Your task to perform on an android device: turn off javascript in the chrome app Image 0: 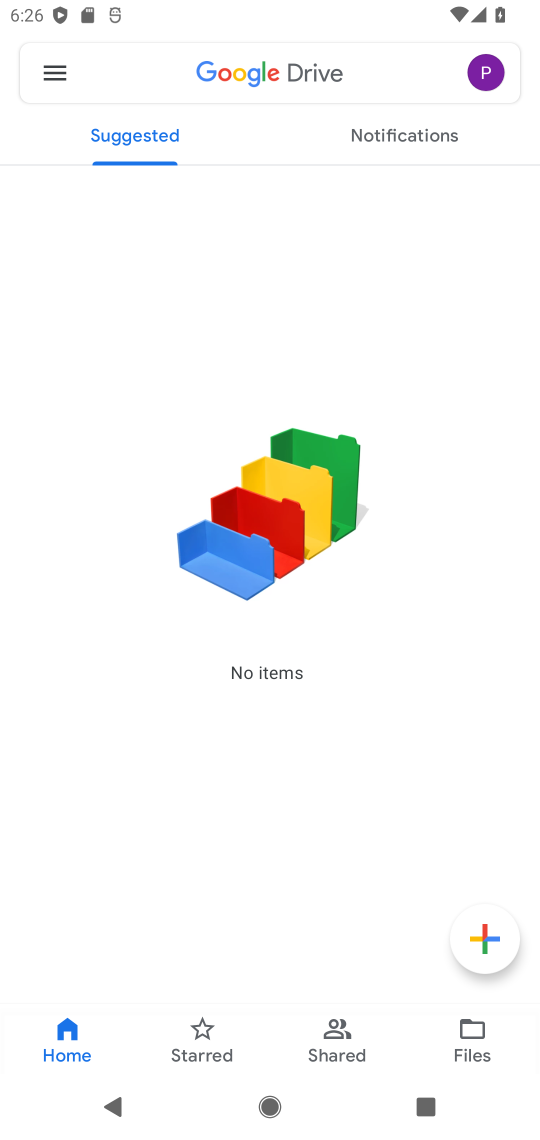
Step 0: press home button
Your task to perform on an android device: turn off javascript in the chrome app Image 1: 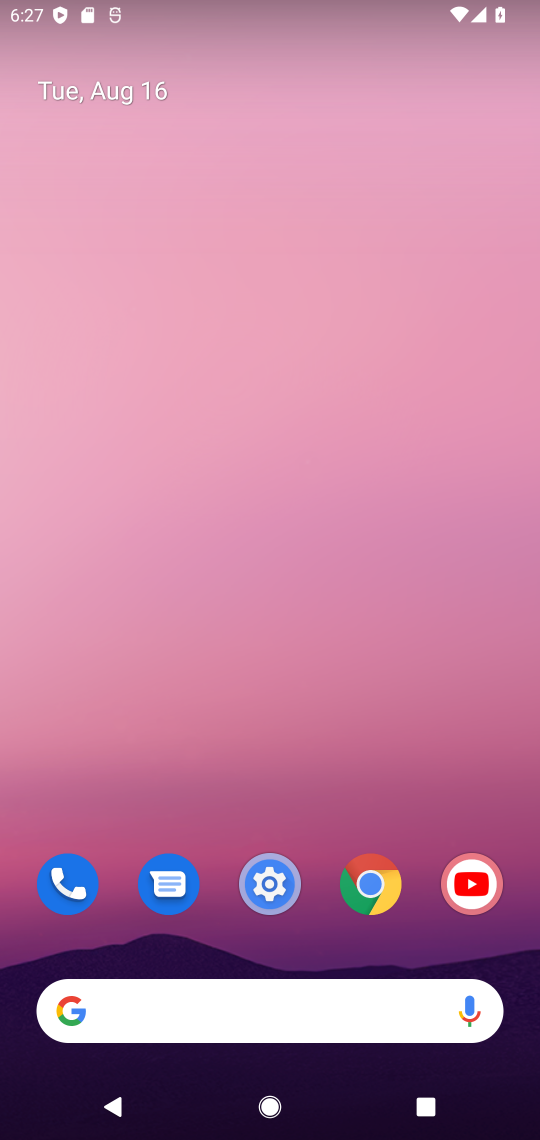
Step 1: click (368, 881)
Your task to perform on an android device: turn off javascript in the chrome app Image 2: 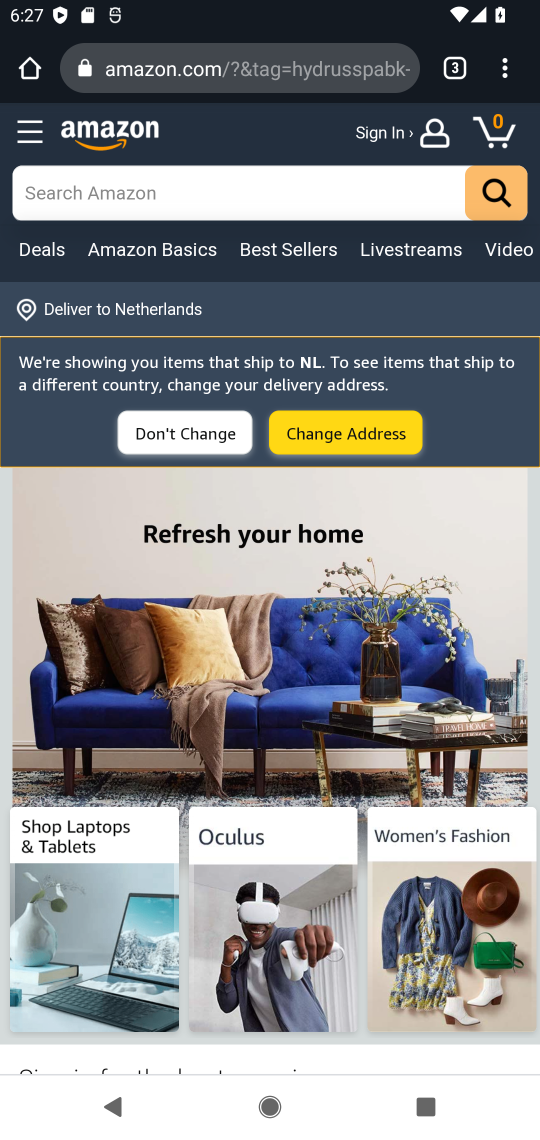
Step 2: drag from (499, 81) to (306, 841)
Your task to perform on an android device: turn off javascript in the chrome app Image 3: 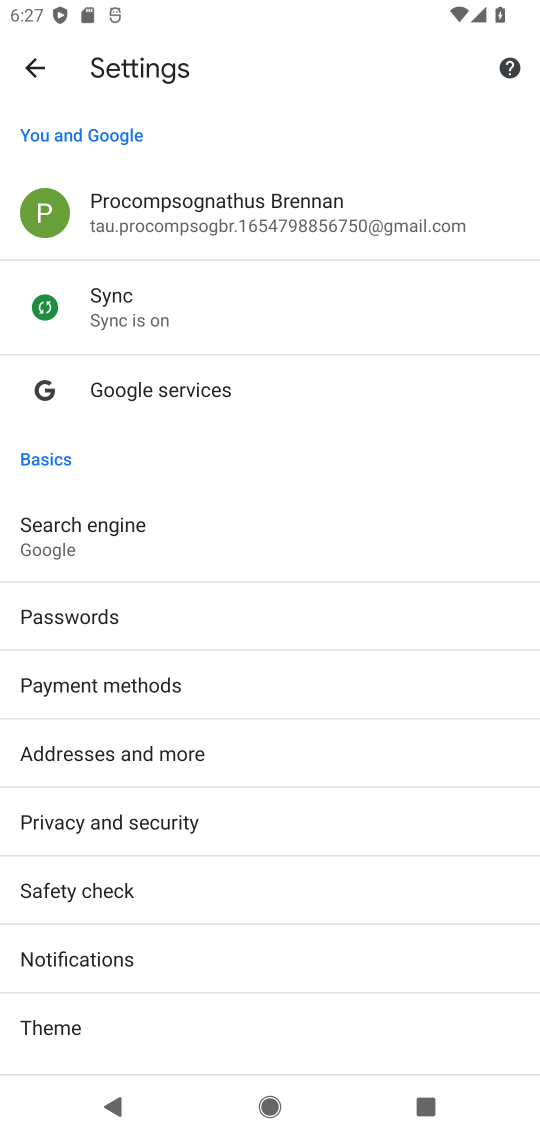
Step 3: drag from (277, 1016) to (112, 450)
Your task to perform on an android device: turn off javascript in the chrome app Image 4: 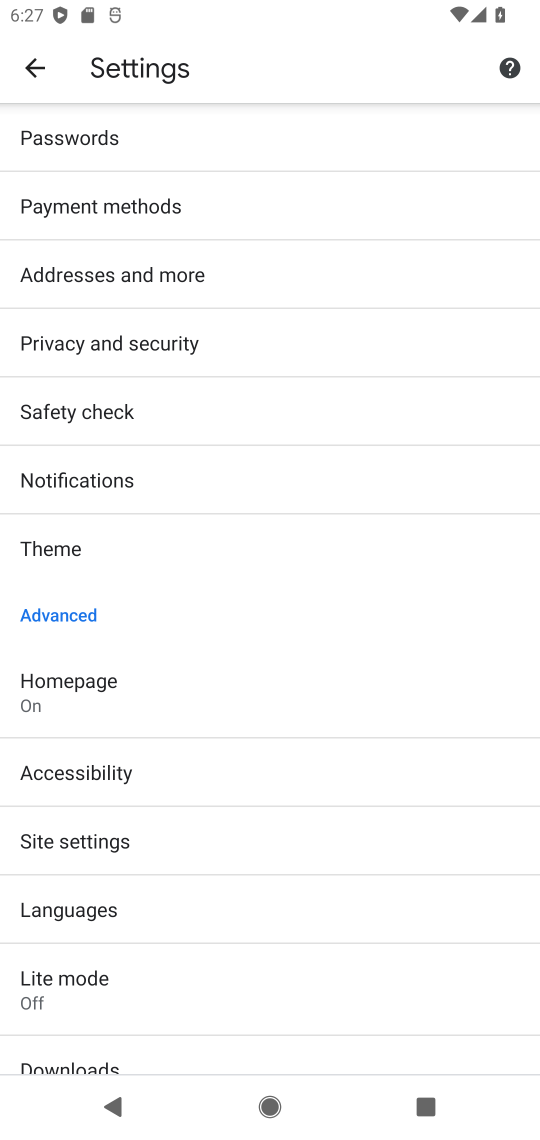
Step 4: click (33, 841)
Your task to perform on an android device: turn off javascript in the chrome app Image 5: 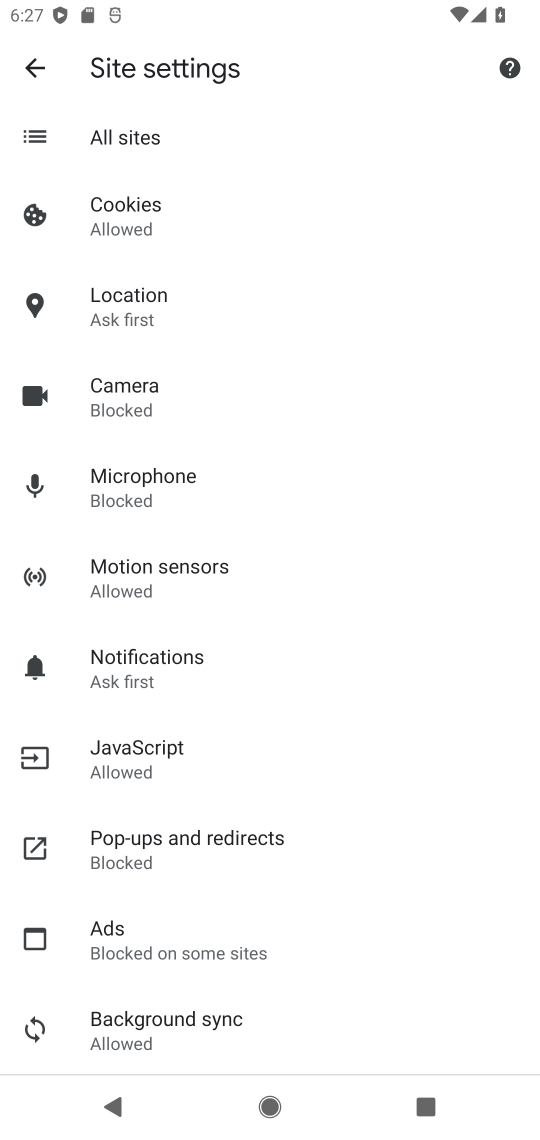
Step 5: click (128, 721)
Your task to perform on an android device: turn off javascript in the chrome app Image 6: 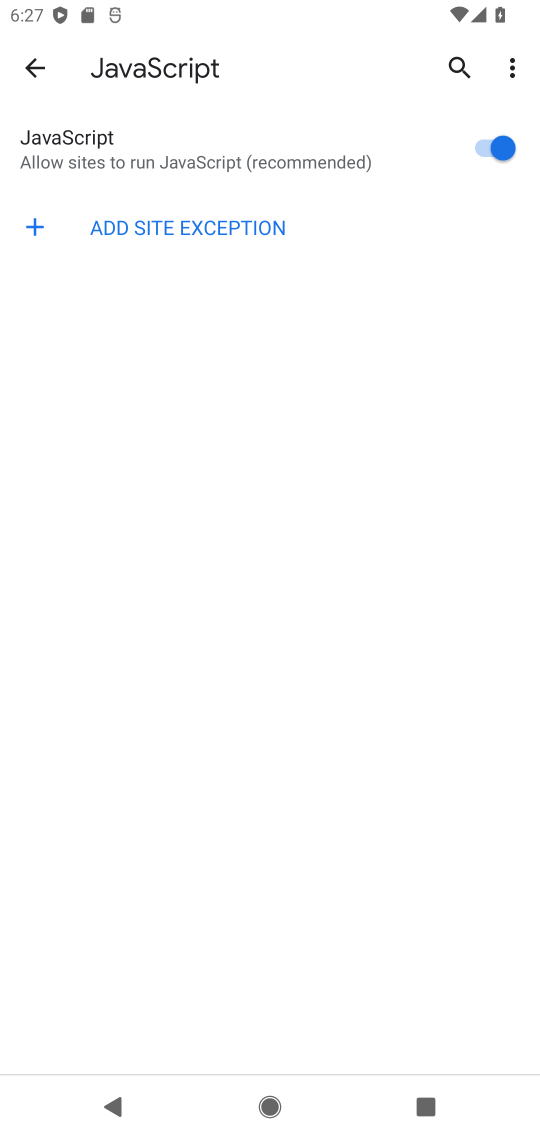
Step 6: click (489, 151)
Your task to perform on an android device: turn off javascript in the chrome app Image 7: 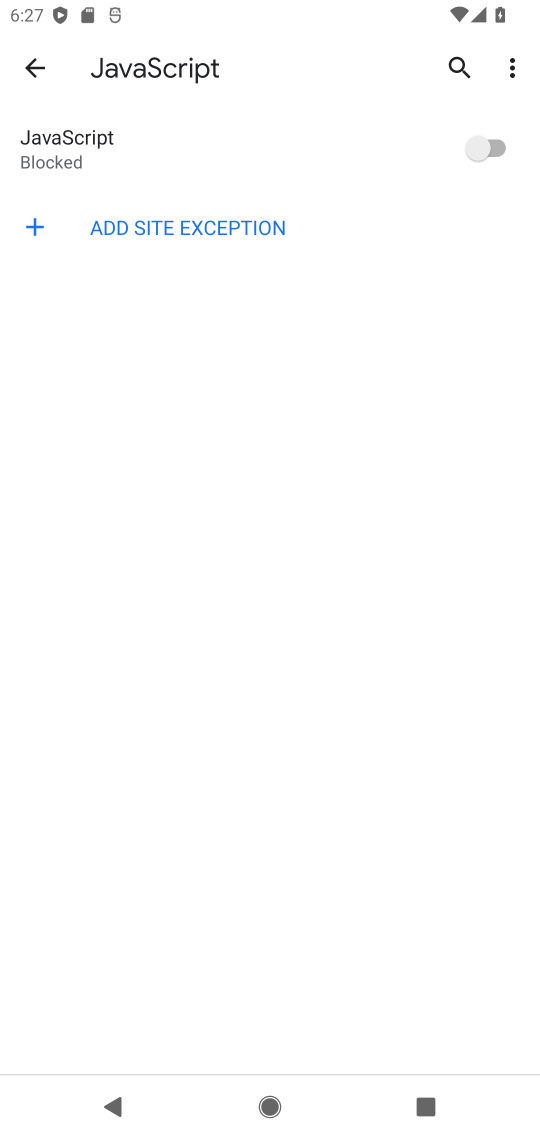
Step 7: task complete